Your task to perform on an android device: Open settings Image 0: 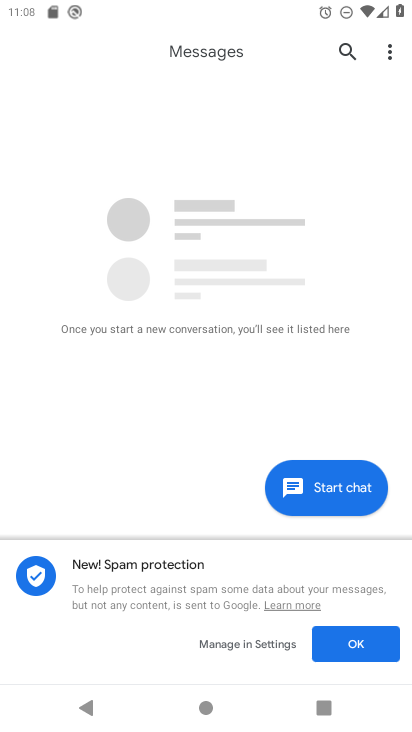
Step 0: press home button
Your task to perform on an android device: Open settings Image 1: 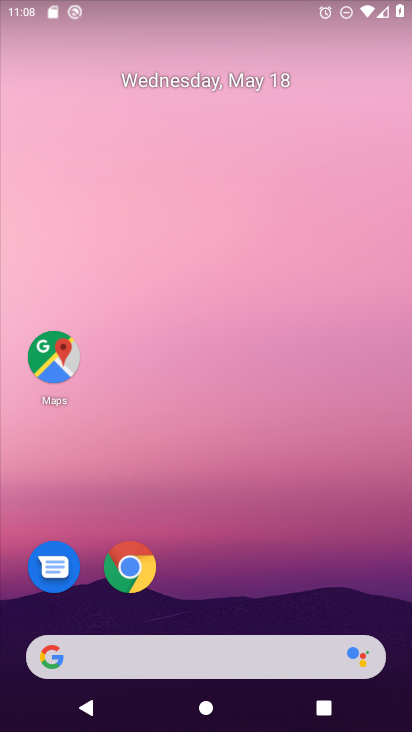
Step 1: drag from (270, 678) to (278, 111)
Your task to perform on an android device: Open settings Image 2: 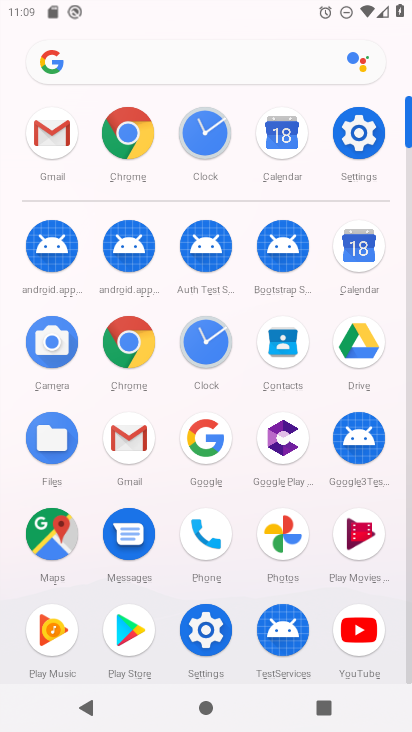
Step 2: click (356, 120)
Your task to perform on an android device: Open settings Image 3: 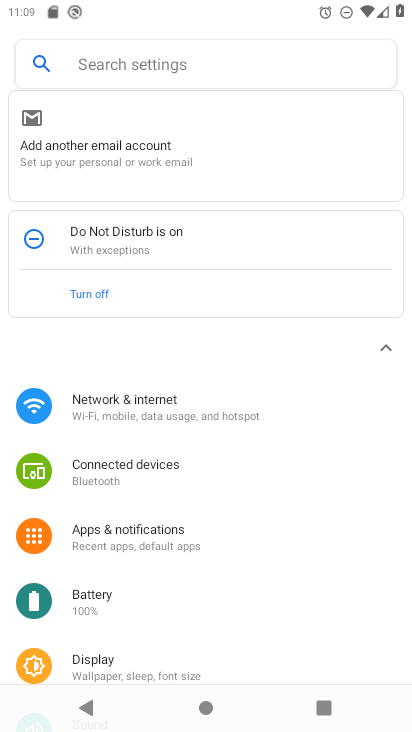
Step 3: task complete